Your task to perform on an android device: Set the phone to "Do not disturb". Image 0: 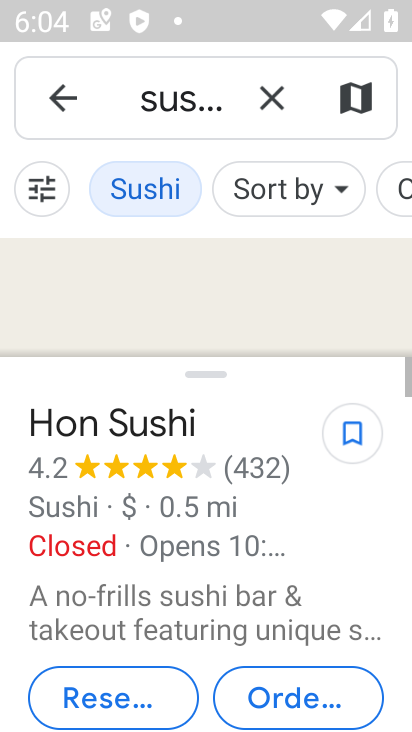
Step 0: press home button
Your task to perform on an android device: Set the phone to "Do not disturb". Image 1: 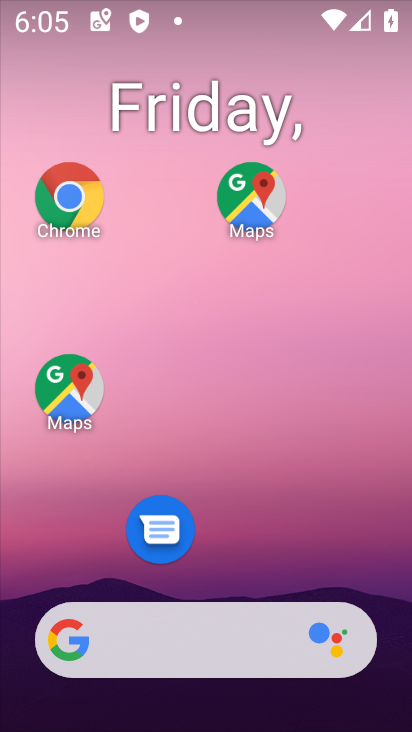
Step 1: drag from (255, 548) to (228, 81)
Your task to perform on an android device: Set the phone to "Do not disturb". Image 2: 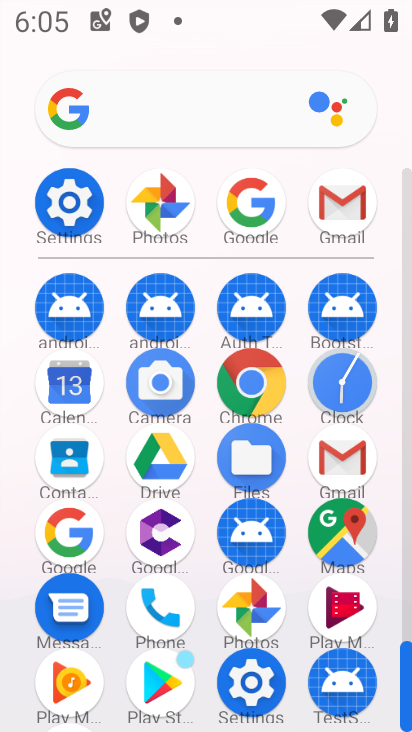
Step 2: click (61, 203)
Your task to perform on an android device: Set the phone to "Do not disturb". Image 3: 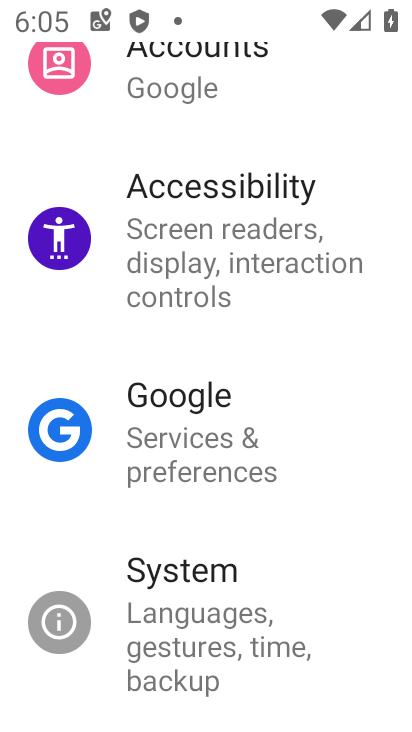
Step 3: drag from (241, 282) to (205, 613)
Your task to perform on an android device: Set the phone to "Do not disturb". Image 4: 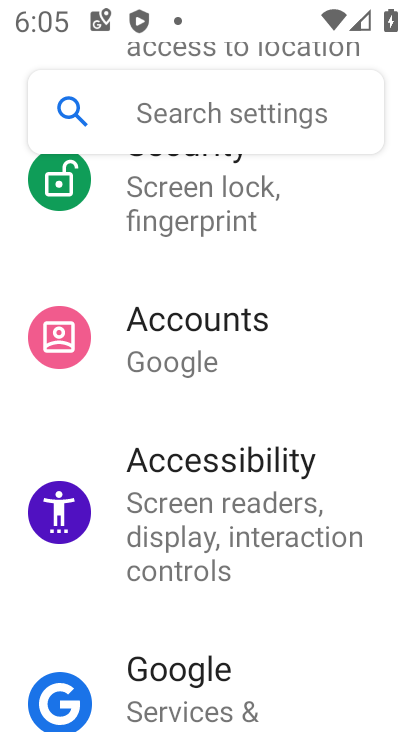
Step 4: drag from (276, 321) to (223, 684)
Your task to perform on an android device: Set the phone to "Do not disturb". Image 5: 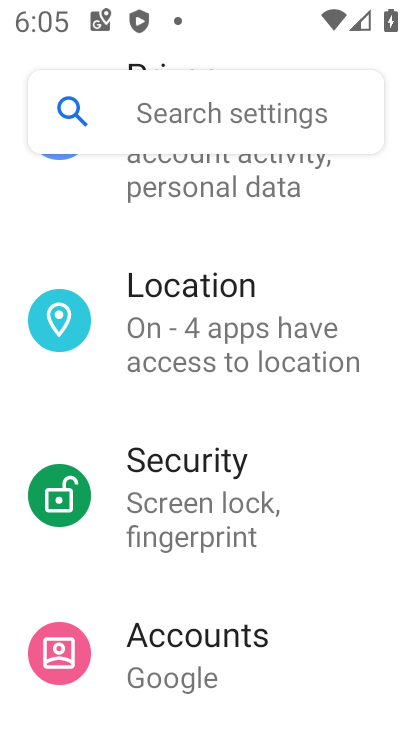
Step 5: drag from (270, 296) to (222, 652)
Your task to perform on an android device: Set the phone to "Do not disturb". Image 6: 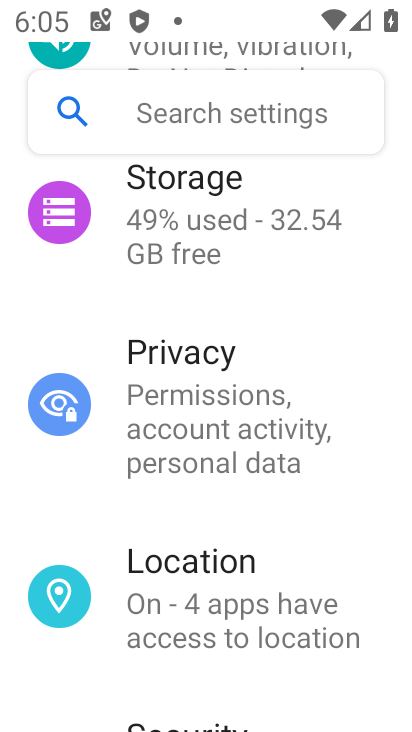
Step 6: drag from (316, 386) to (271, 686)
Your task to perform on an android device: Set the phone to "Do not disturb". Image 7: 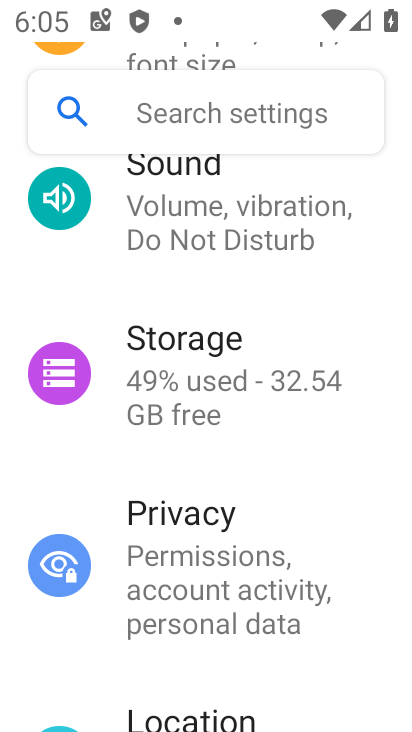
Step 7: drag from (262, 351) to (262, 665)
Your task to perform on an android device: Set the phone to "Do not disturb". Image 8: 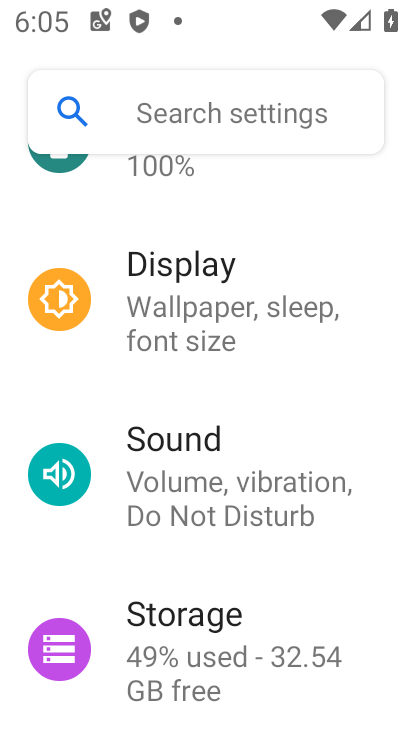
Step 8: drag from (265, 381) to (222, 692)
Your task to perform on an android device: Set the phone to "Do not disturb". Image 9: 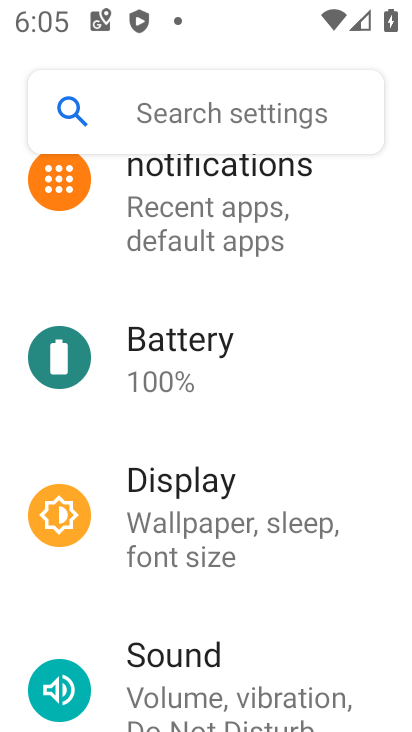
Step 9: click (197, 676)
Your task to perform on an android device: Set the phone to "Do not disturb". Image 10: 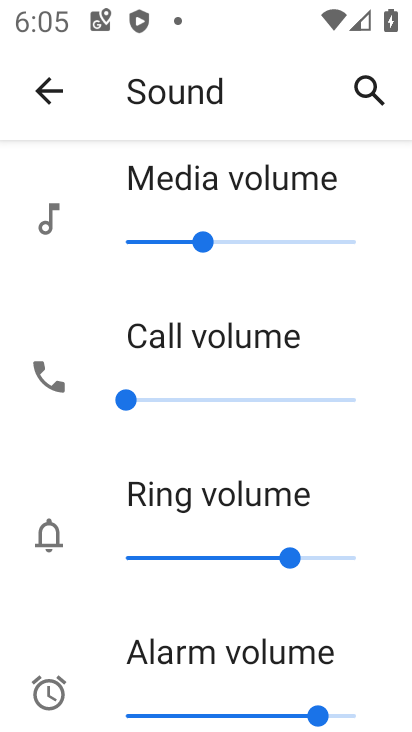
Step 10: drag from (196, 690) to (199, 339)
Your task to perform on an android device: Set the phone to "Do not disturb". Image 11: 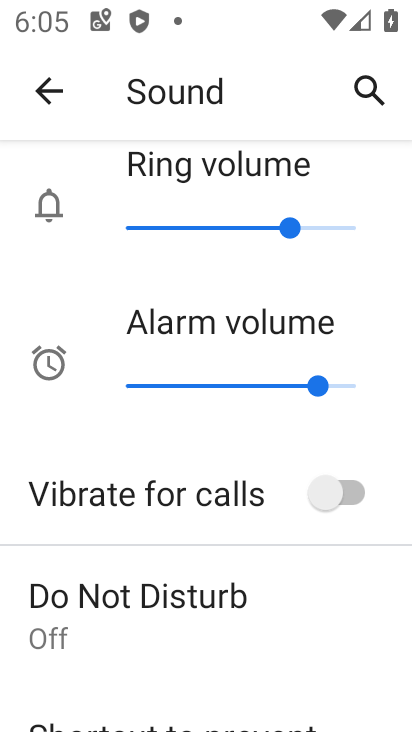
Step 11: click (162, 634)
Your task to perform on an android device: Set the phone to "Do not disturb". Image 12: 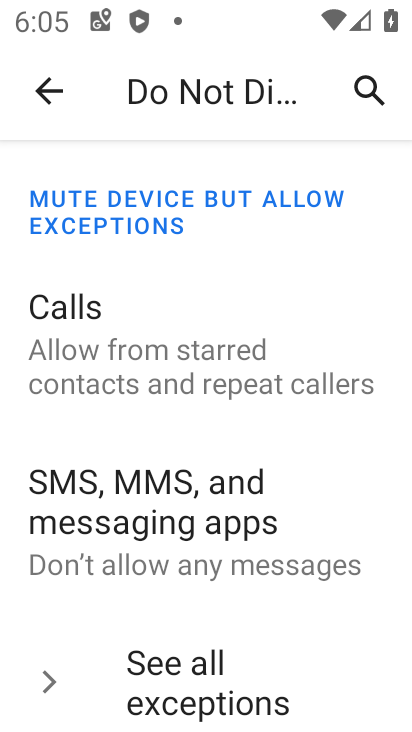
Step 12: drag from (213, 620) to (234, 341)
Your task to perform on an android device: Set the phone to "Do not disturb". Image 13: 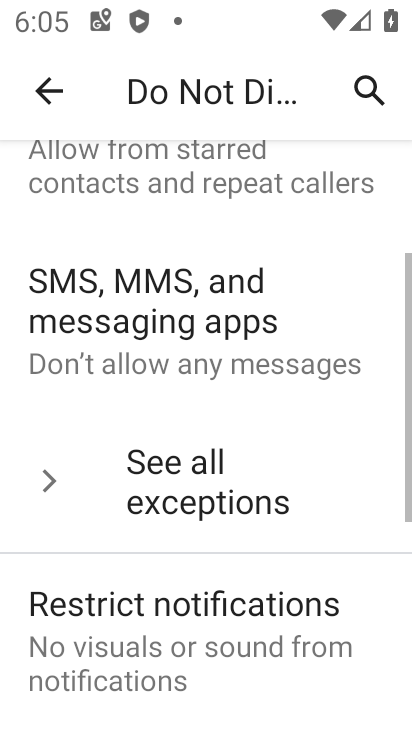
Step 13: drag from (215, 557) to (189, 288)
Your task to perform on an android device: Set the phone to "Do not disturb". Image 14: 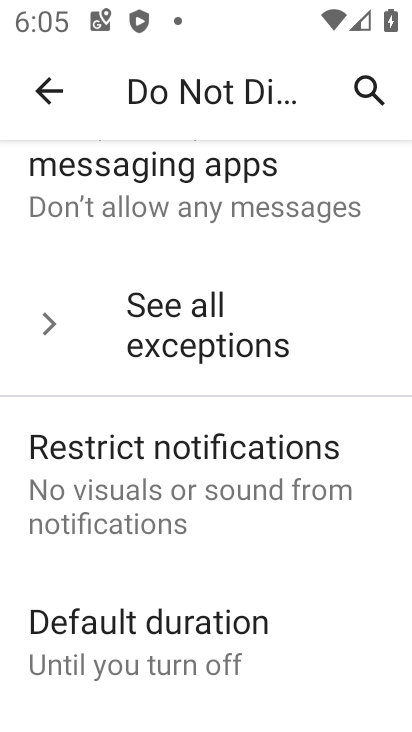
Step 14: drag from (172, 569) to (198, 263)
Your task to perform on an android device: Set the phone to "Do not disturb". Image 15: 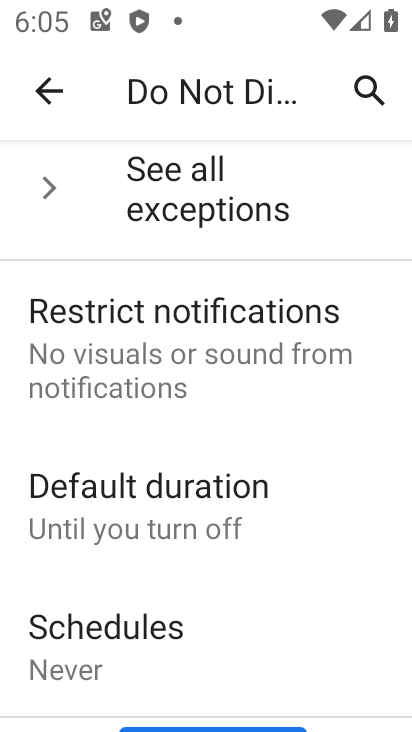
Step 15: drag from (145, 572) to (213, 289)
Your task to perform on an android device: Set the phone to "Do not disturb". Image 16: 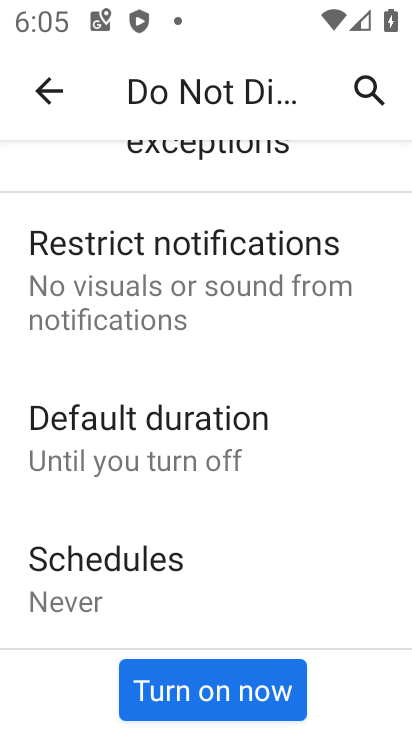
Step 16: click (181, 703)
Your task to perform on an android device: Set the phone to "Do not disturb". Image 17: 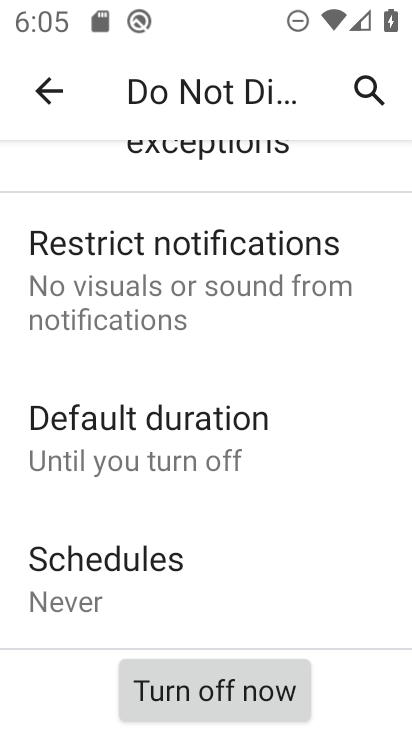
Step 17: task complete